Your task to perform on an android device: Open notification settings Image 0: 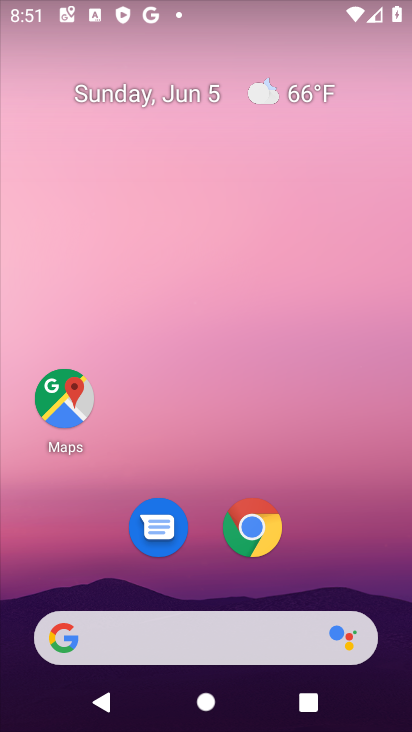
Step 0: drag from (189, 565) to (192, 34)
Your task to perform on an android device: Open notification settings Image 1: 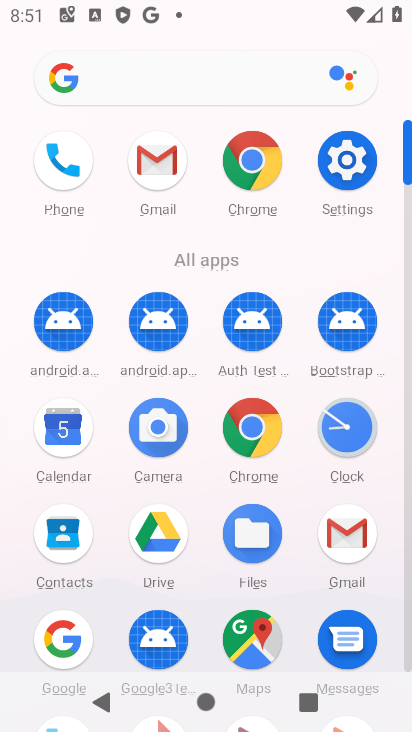
Step 1: click (361, 168)
Your task to perform on an android device: Open notification settings Image 2: 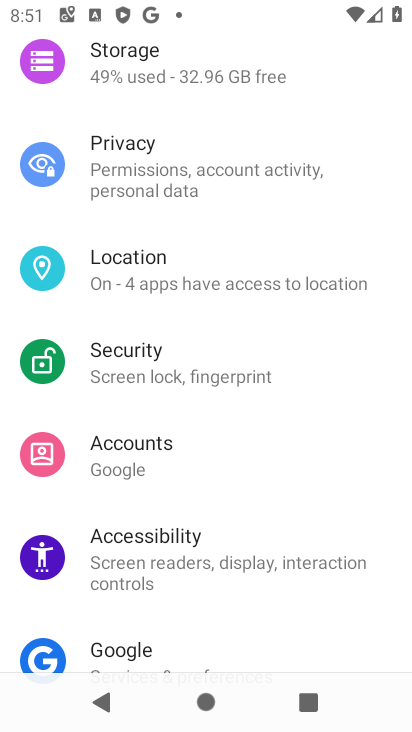
Step 2: drag from (178, 125) to (13, 726)
Your task to perform on an android device: Open notification settings Image 3: 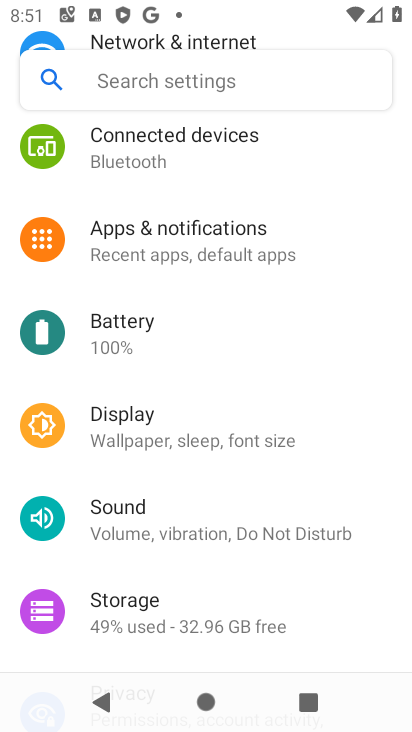
Step 3: click (182, 225)
Your task to perform on an android device: Open notification settings Image 4: 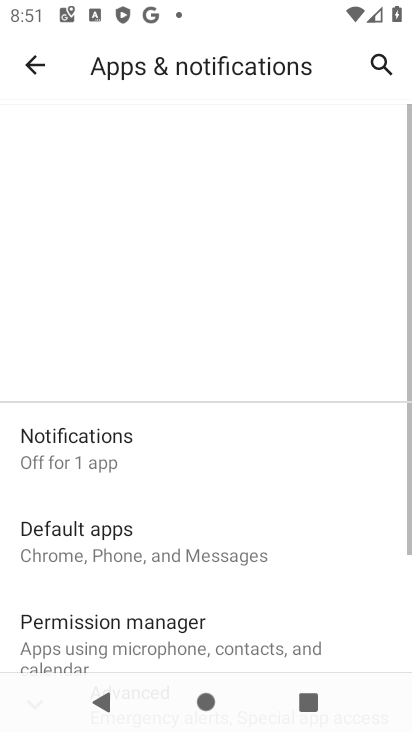
Step 4: click (182, 225)
Your task to perform on an android device: Open notification settings Image 5: 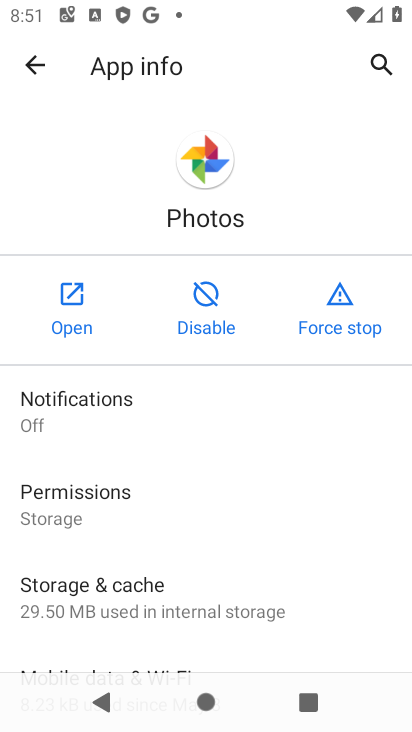
Step 5: task complete